Your task to perform on an android device: Open sound settings Image 0: 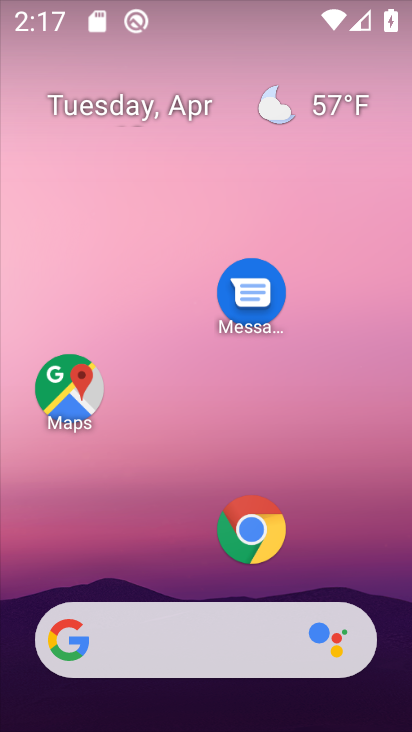
Step 0: drag from (179, 459) to (154, 99)
Your task to perform on an android device: Open sound settings Image 1: 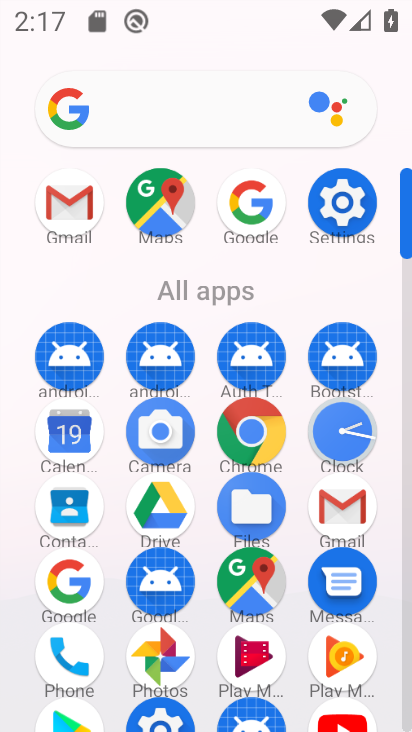
Step 1: click (71, 584)
Your task to perform on an android device: Open sound settings Image 2: 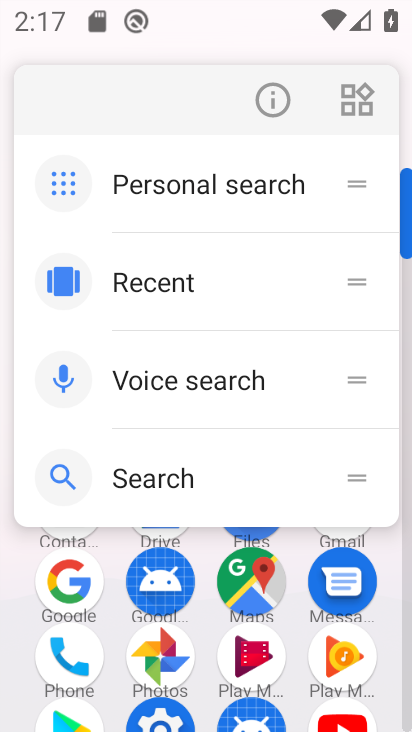
Step 2: click (84, 581)
Your task to perform on an android device: Open sound settings Image 3: 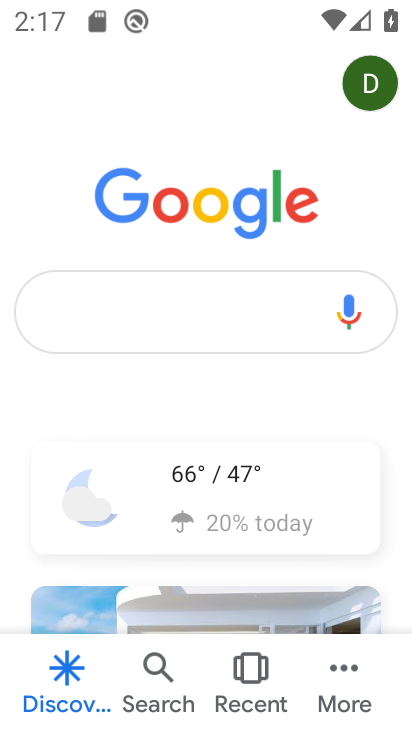
Step 3: click (165, 300)
Your task to perform on an android device: Open sound settings Image 4: 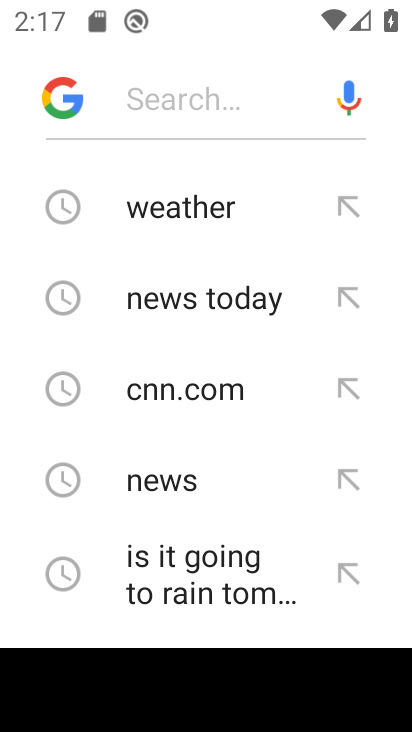
Step 4: type "c"
Your task to perform on an android device: Open sound settings Image 5: 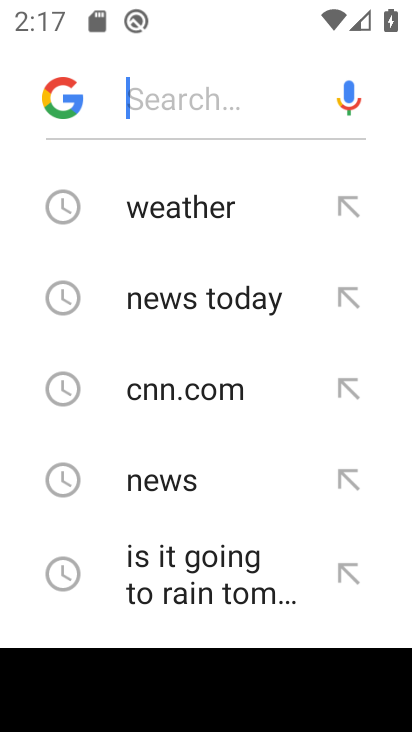
Step 5: click (150, 396)
Your task to perform on an android device: Open sound settings Image 6: 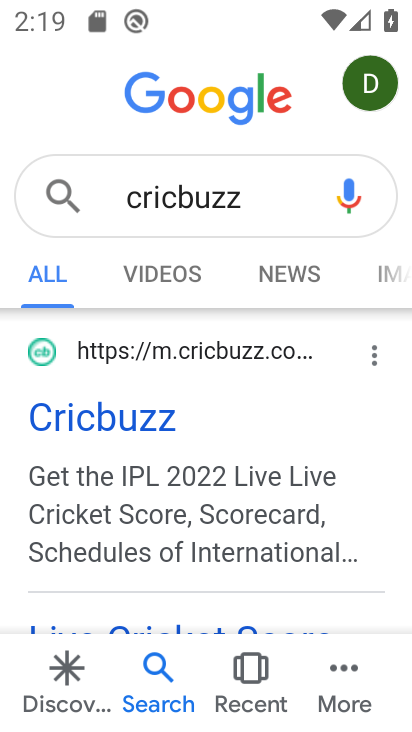
Step 6: task complete